Your task to perform on an android device: Open Android settings Image 0: 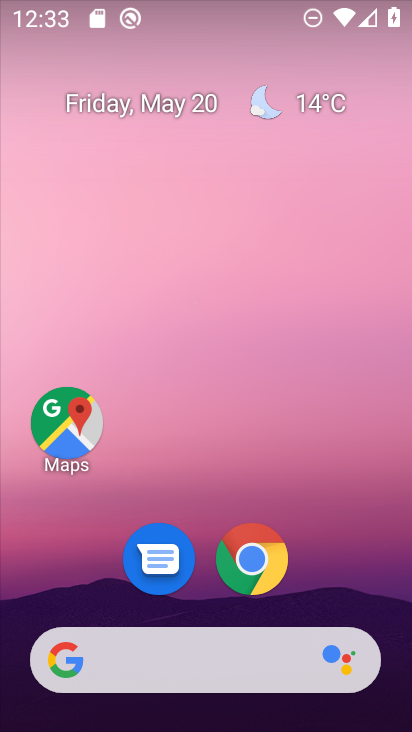
Step 0: drag from (380, 578) to (361, 22)
Your task to perform on an android device: Open Android settings Image 1: 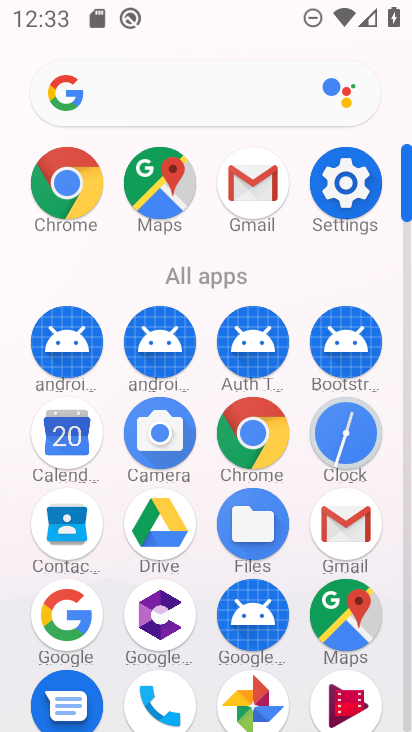
Step 1: click (368, 197)
Your task to perform on an android device: Open Android settings Image 2: 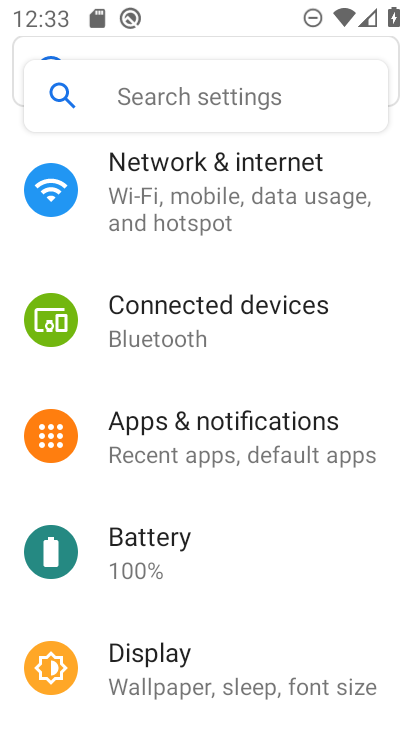
Step 2: task complete